Your task to perform on an android device: What is the news today? Image 0: 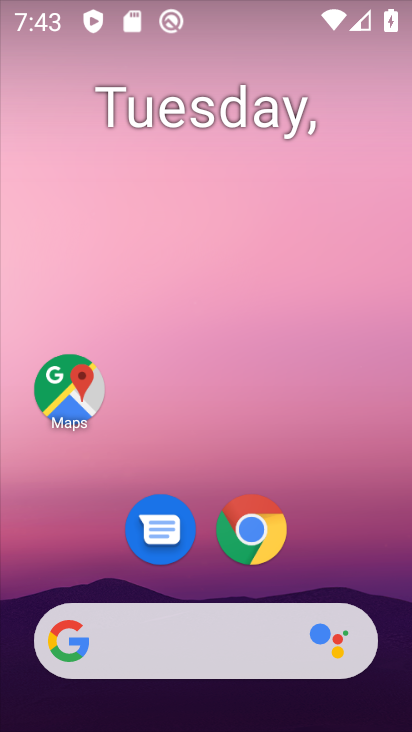
Step 0: drag from (248, 666) to (273, 1)
Your task to perform on an android device: What is the news today? Image 1: 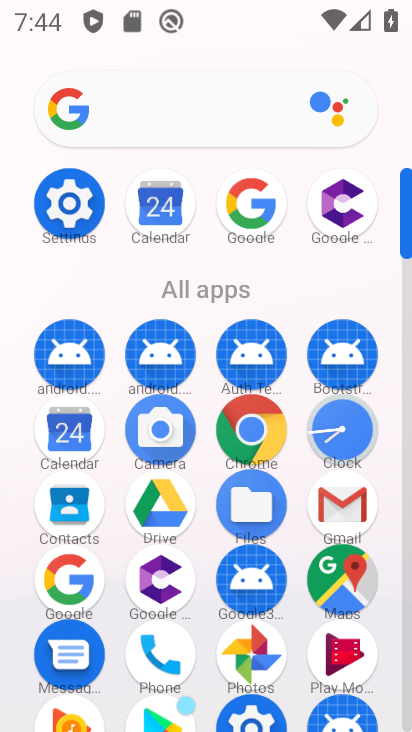
Step 1: click (87, 592)
Your task to perform on an android device: What is the news today? Image 2: 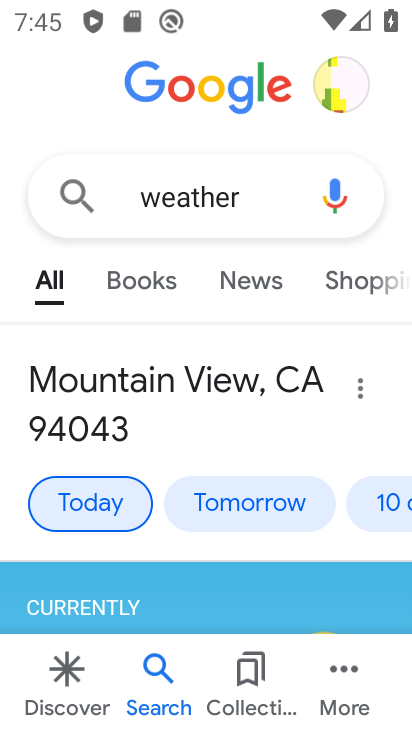
Step 2: click (276, 201)
Your task to perform on an android device: What is the news today? Image 3: 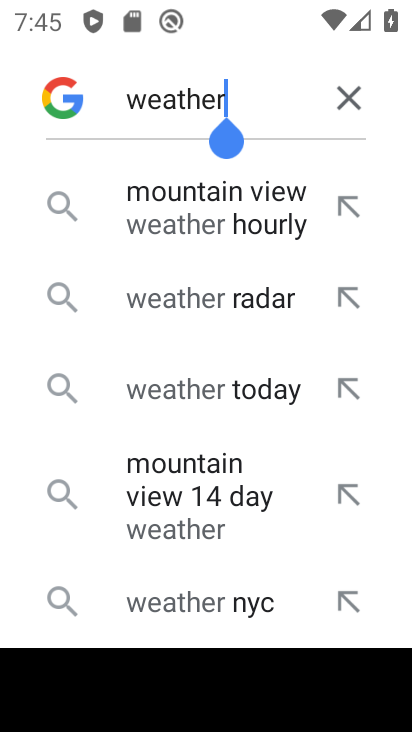
Step 3: click (350, 99)
Your task to perform on an android device: What is the news today? Image 4: 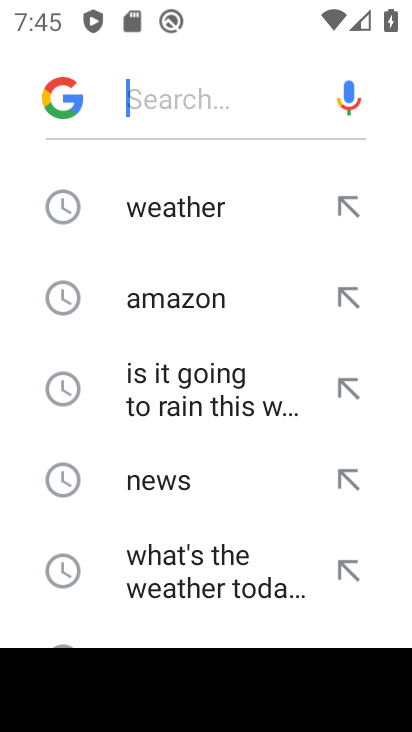
Step 4: click (230, 97)
Your task to perform on an android device: What is the news today? Image 5: 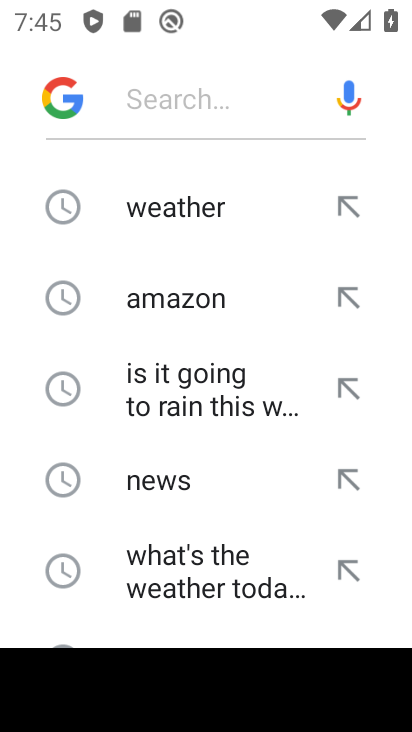
Step 5: click (267, 490)
Your task to perform on an android device: What is the news today? Image 6: 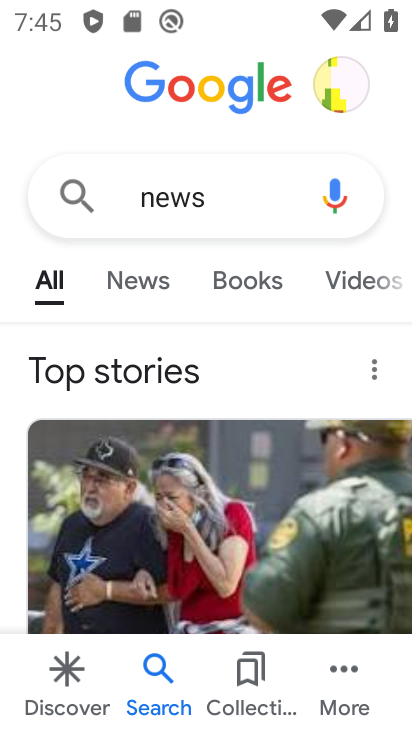
Step 6: task complete